Your task to perform on an android device: Open accessibility settings Image 0: 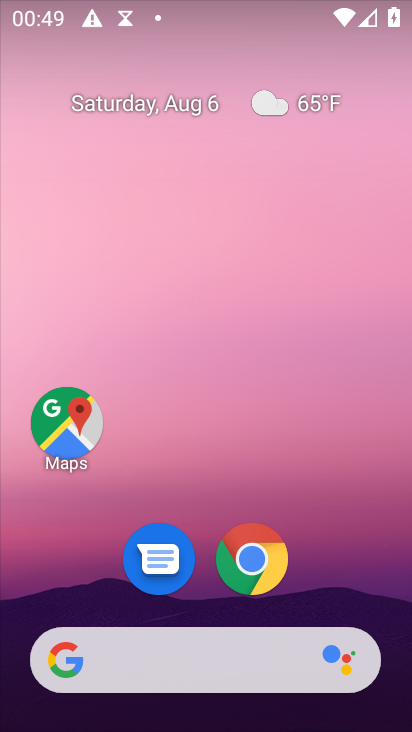
Step 0: drag from (352, 603) to (214, 71)
Your task to perform on an android device: Open accessibility settings Image 1: 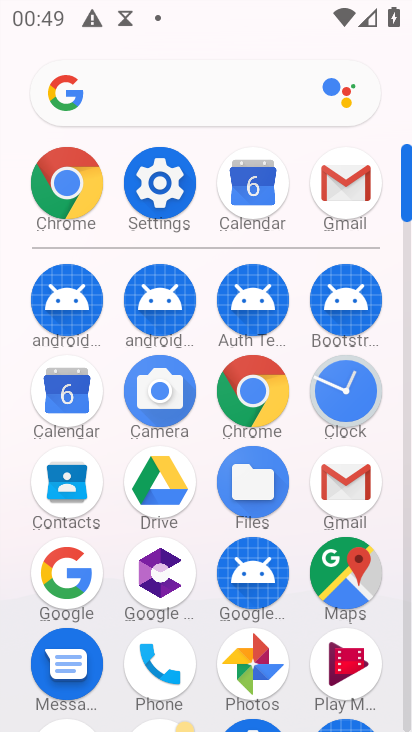
Step 1: click (171, 187)
Your task to perform on an android device: Open accessibility settings Image 2: 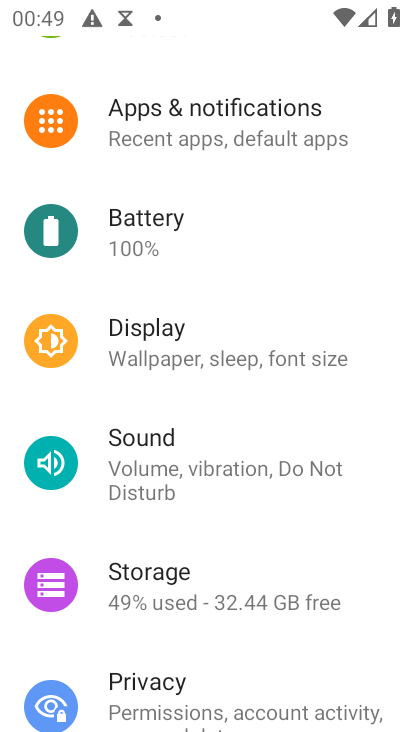
Step 2: drag from (332, 680) to (237, 202)
Your task to perform on an android device: Open accessibility settings Image 3: 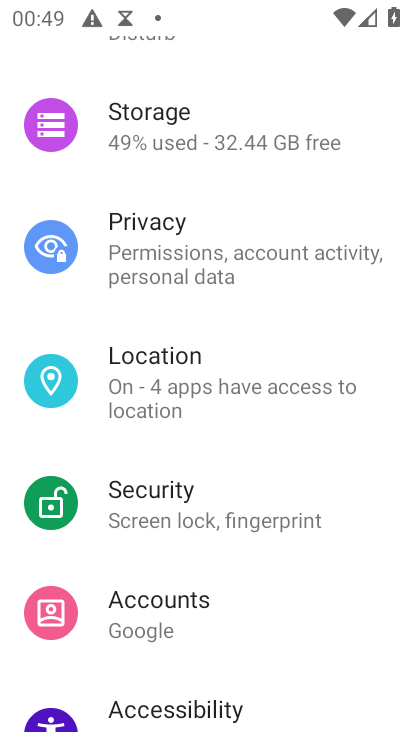
Step 3: click (281, 717)
Your task to perform on an android device: Open accessibility settings Image 4: 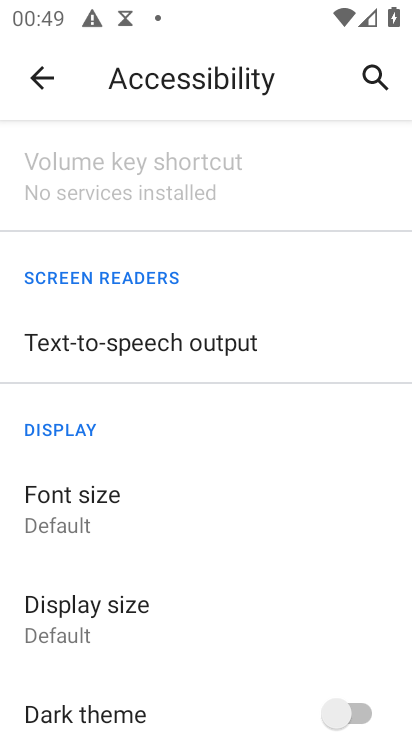
Step 4: task complete